Your task to perform on an android device: Open network settings Image 0: 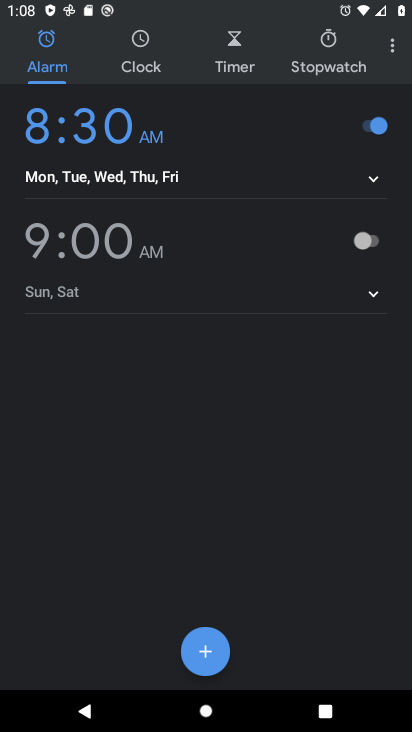
Step 0: press home button
Your task to perform on an android device: Open network settings Image 1: 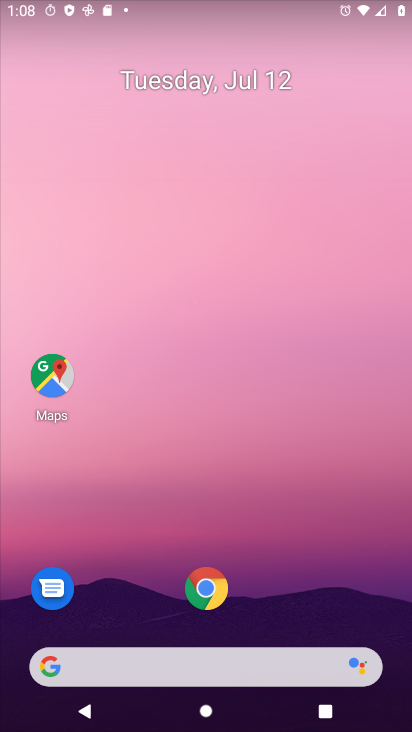
Step 1: drag from (221, 644) to (269, 197)
Your task to perform on an android device: Open network settings Image 2: 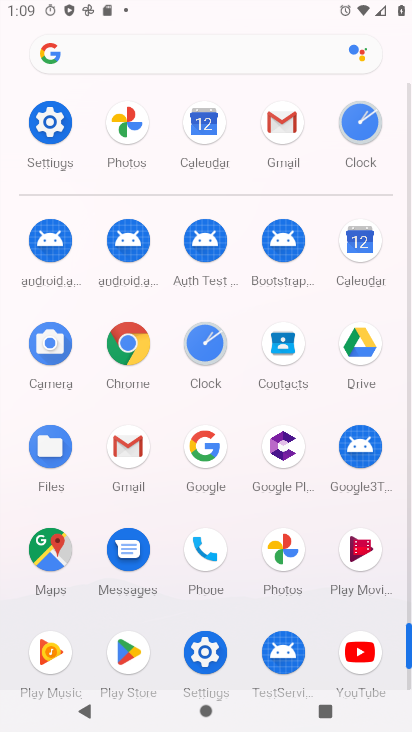
Step 2: click (54, 133)
Your task to perform on an android device: Open network settings Image 3: 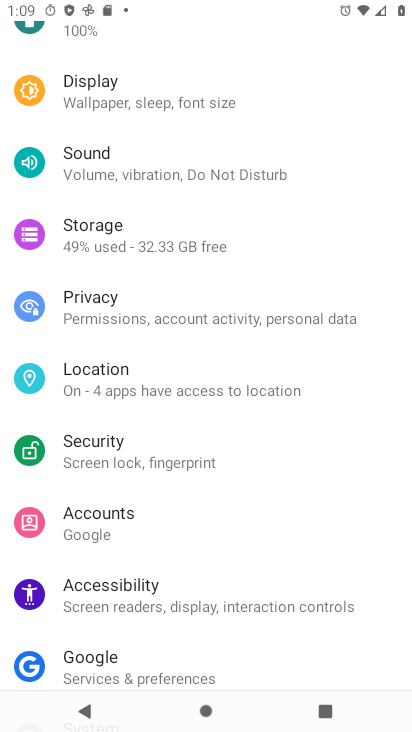
Step 3: drag from (307, 99) to (336, 609)
Your task to perform on an android device: Open network settings Image 4: 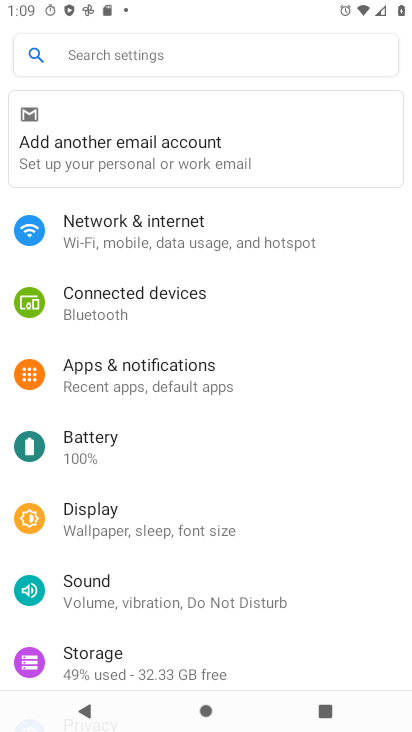
Step 4: click (151, 228)
Your task to perform on an android device: Open network settings Image 5: 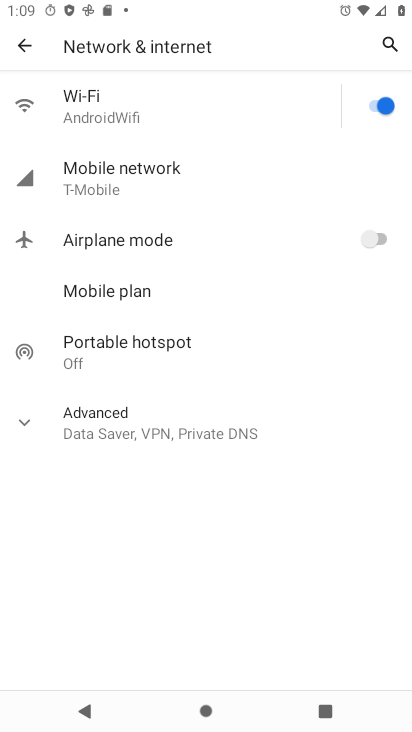
Step 5: click (122, 171)
Your task to perform on an android device: Open network settings Image 6: 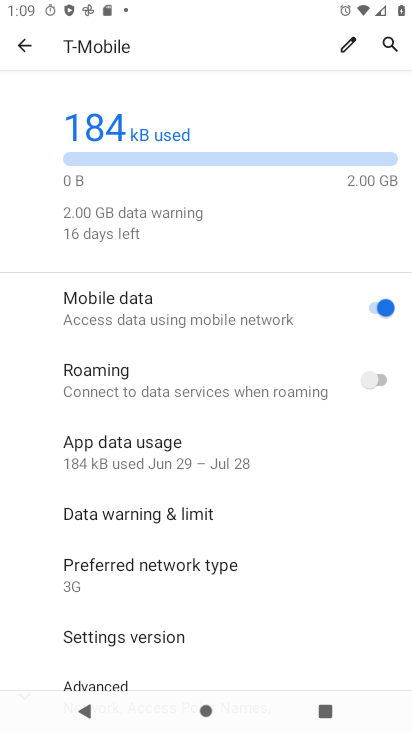
Step 6: task complete